Your task to perform on an android device: Open settings on Google Maps Image 0: 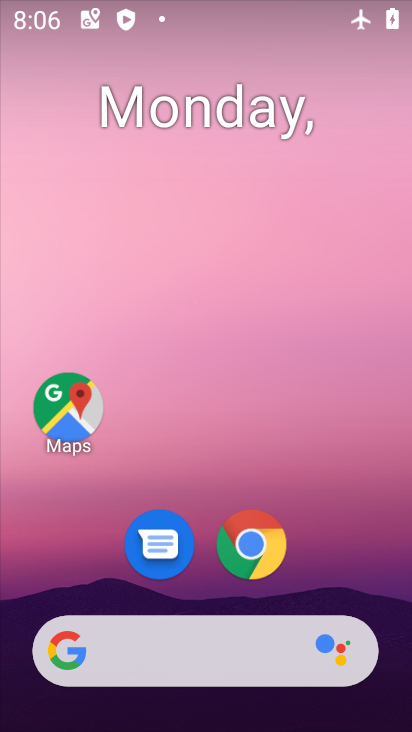
Step 0: drag from (335, 568) to (204, 5)
Your task to perform on an android device: Open settings on Google Maps Image 1: 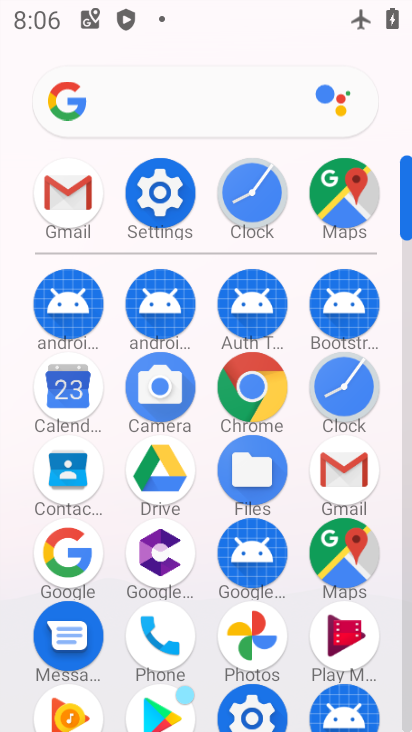
Step 1: click (45, 289)
Your task to perform on an android device: Open settings on Google Maps Image 2: 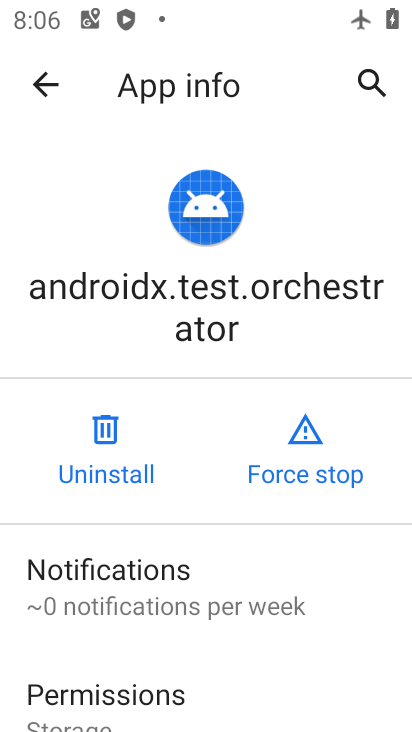
Step 2: press home button
Your task to perform on an android device: Open settings on Google Maps Image 3: 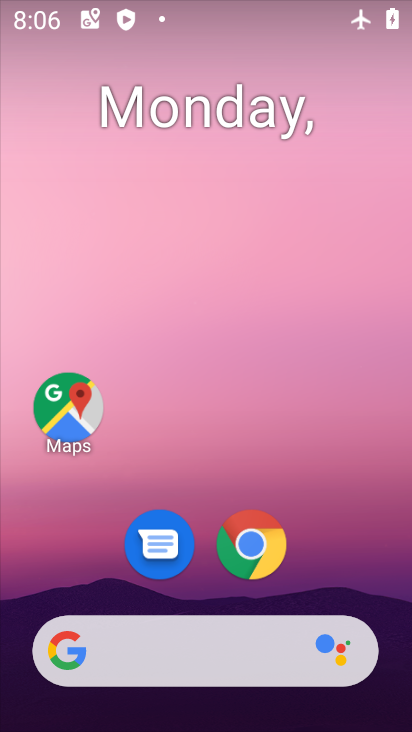
Step 3: drag from (335, 512) to (314, 161)
Your task to perform on an android device: Open settings on Google Maps Image 4: 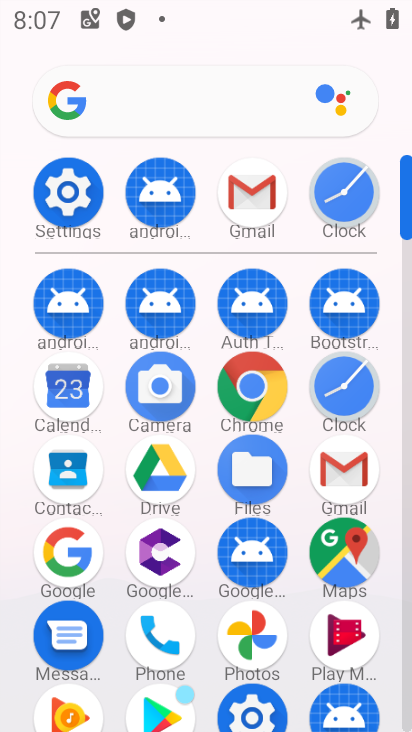
Step 4: click (352, 566)
Your task to perform on an android device: Open settings on Google Maps Image 5: 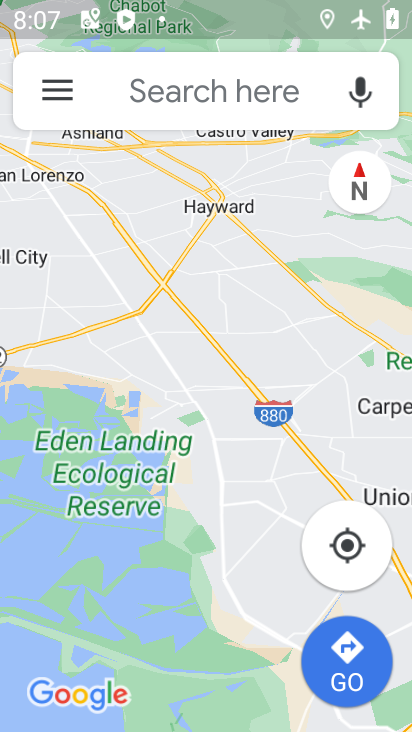
Step 5: click (55, 82)
Your task to perform on an android device: Open settings on Google Maps Image 6: 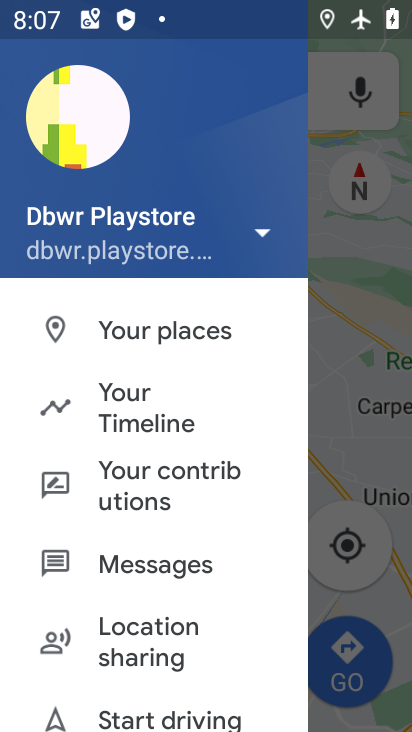
Step 6: drag from (257, 652) to (216, 82)
Your task to perform on an android device: Open settings on Google Maps Image 7: 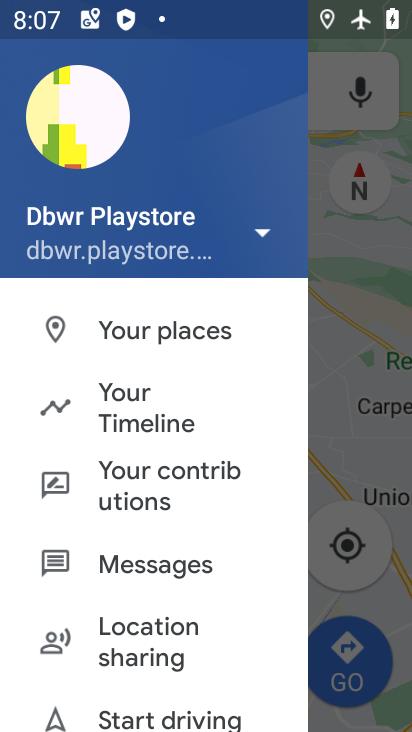
Step 7: drag from (83, 688) to (43, 90)
Your task to perform on an android device: Open settings on Google Maps Image 8: 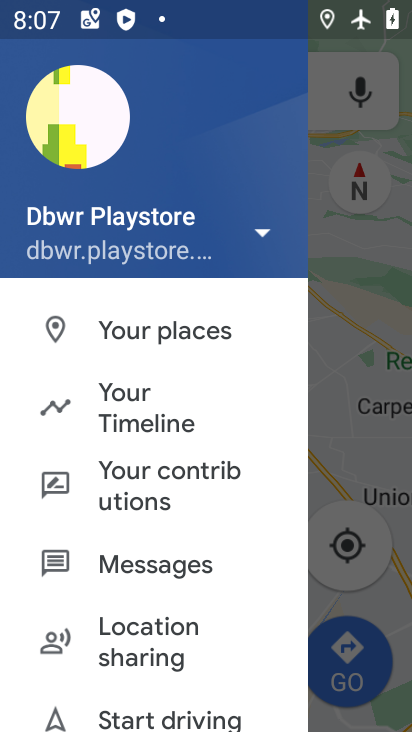
Step 8: drag from (192, 671) to (143, 286)
Your task to perform on an android device: Open settings on Google Maps Image 9: 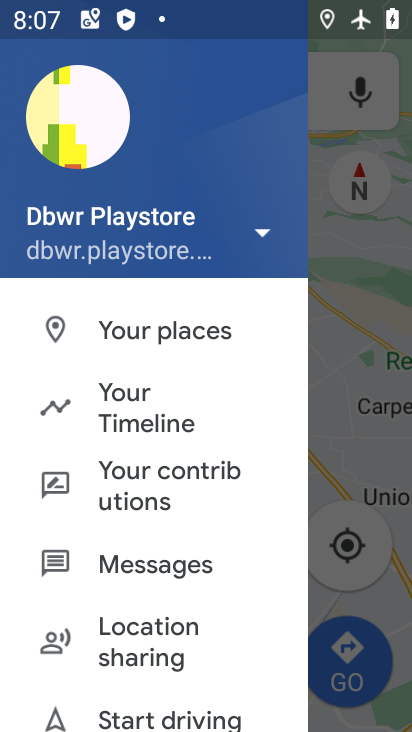
Step 9: drag from (225, 495) to (155, 193)
Your task to perform on an android device: Open settings on Google Maps Image 10: 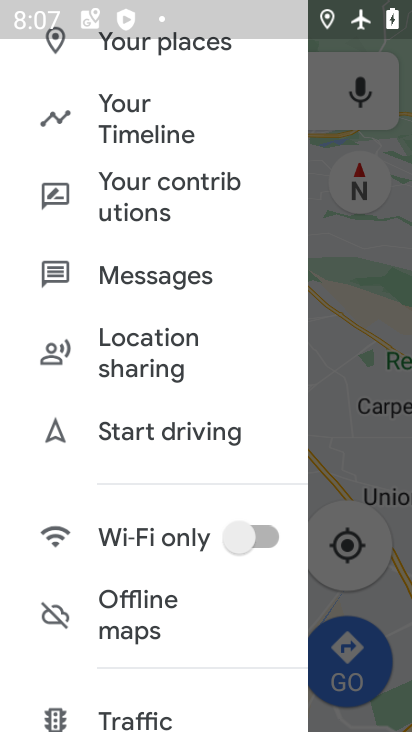
Step 10: drag from (192, 613) to (167, 264)
Your task to perform on an android device: Open settings on Google Maps Image 11: 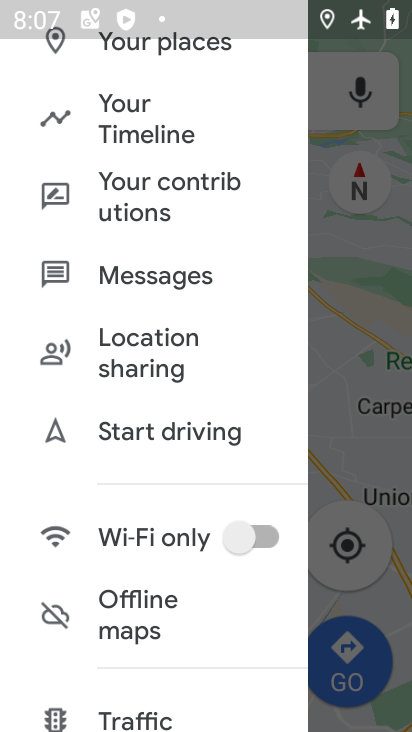
Step 11: drag from (228, 646) to (206, 310)
Your task to perform on an android device: Open settings on Google Maps Image 12: 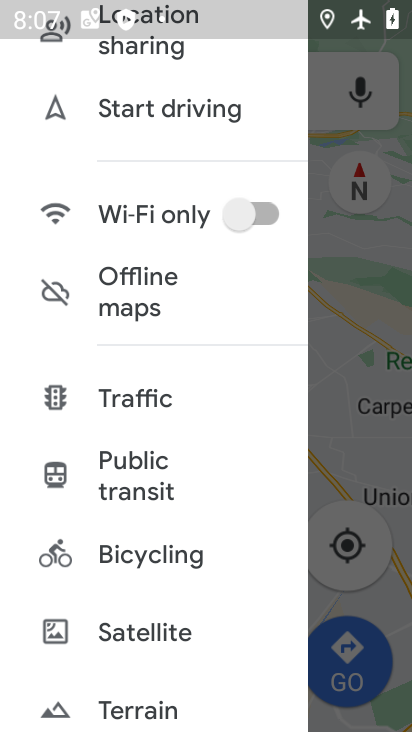
Step 12: drag from (227, 616) to (164, 82)
Your task to perform on an android device: Open settings on Google Maps Image 13: 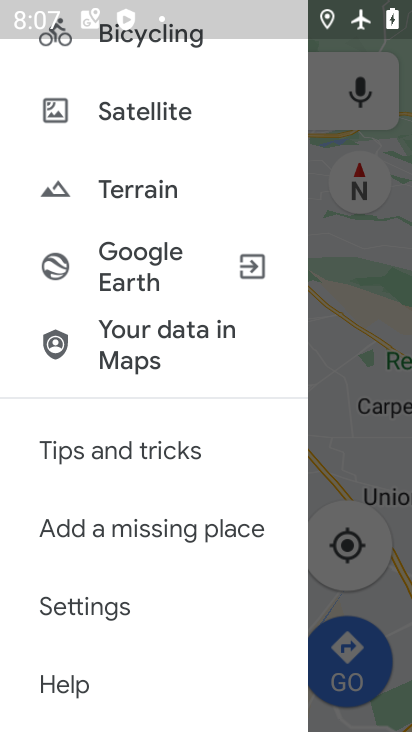
Step 13: click (124, 613)
Your task to perform on an android device: Open settings on Google Maps Image 14: 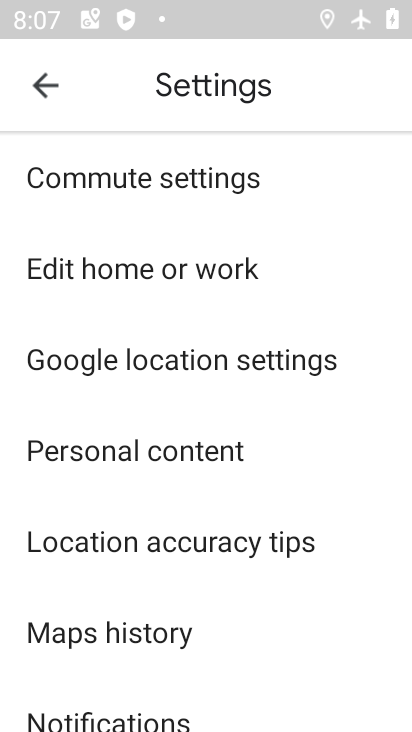
Step 14: task complete